Your task to perform on an android device: Search for Italian restaurants on Maps Image 0: 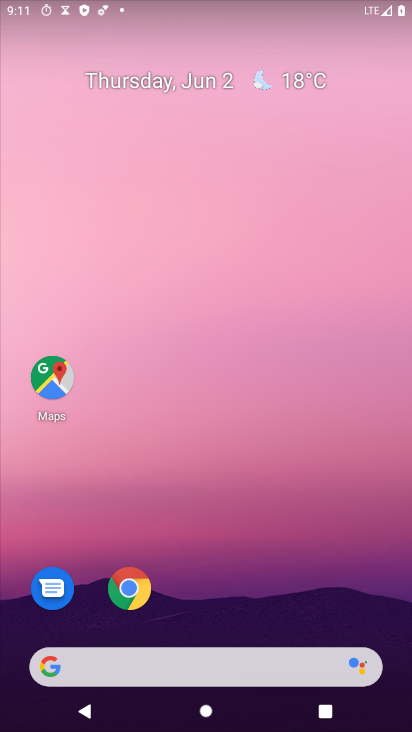
Step 0: click (49, 379)
Your task to perform on an android device: Search for Italian restaurants on Maps Image 1: 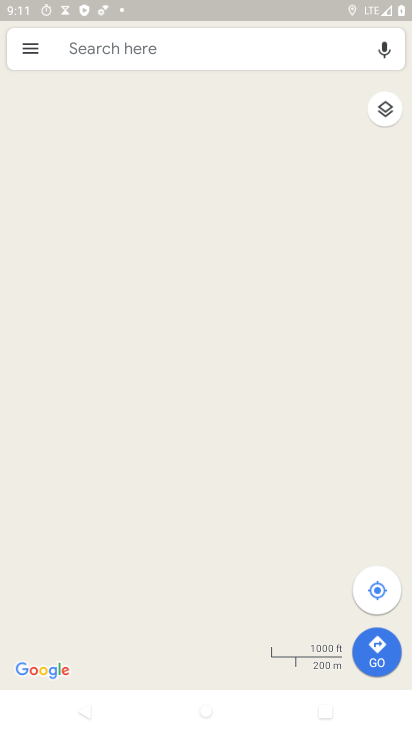
Step 1: click (182, 53)
Your task to perform on an android device: Search for Italian restaurants on Maps Image 2: 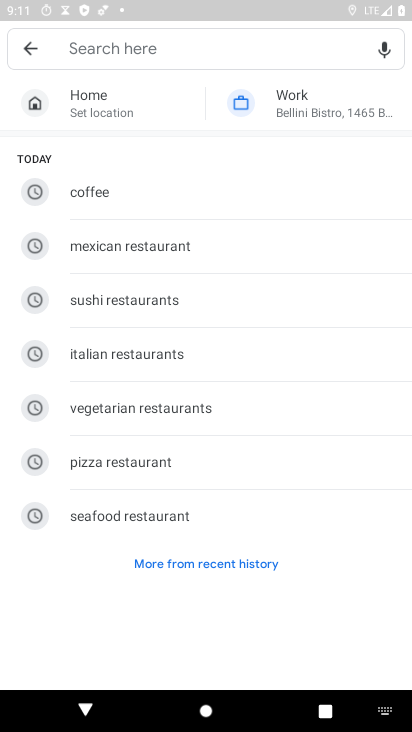
Step 2: click (151, 346)
Your task to perform on an android device: Search for Italian restaurants on Maps Image 3: 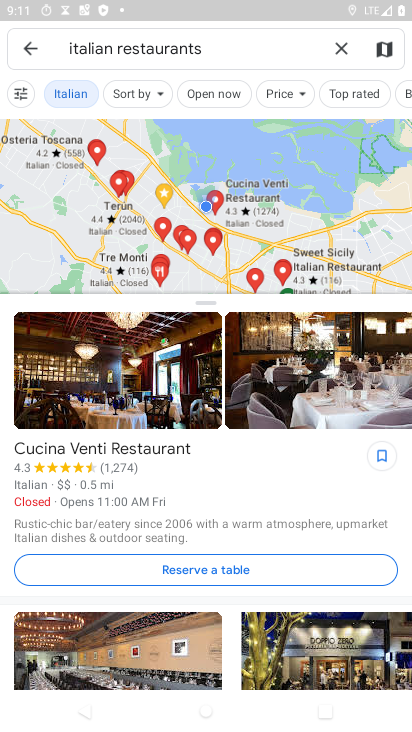
Step 3: task complete